Your task to perform on an android device: Open Google Maps Image 0: 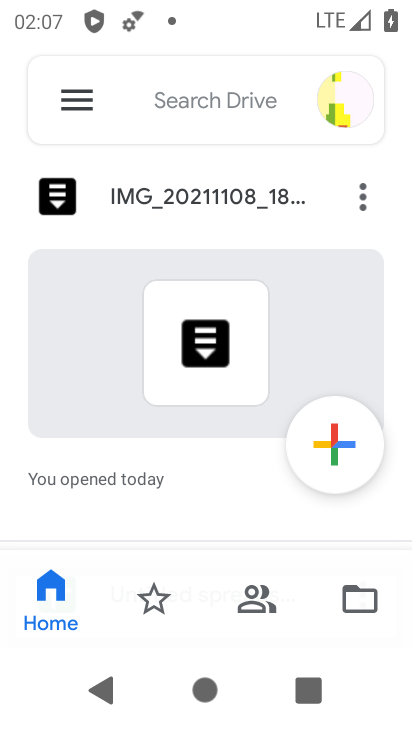
Step 0: press home button
Your task to perform on an android device: Open Google Maps Image 1: 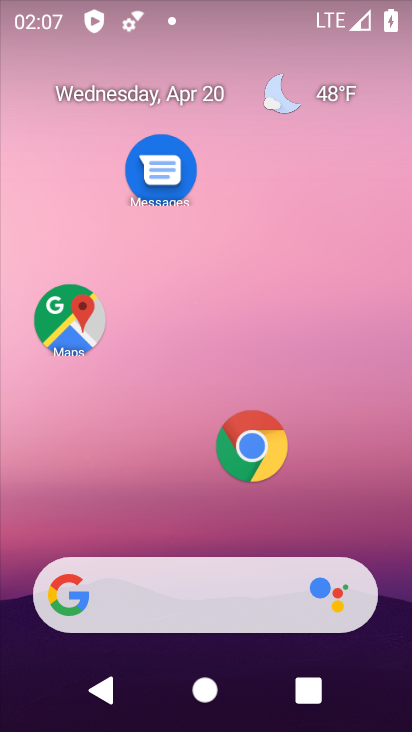
Step 1: click (75, 318)
Your task to perform on an android device: Open Google Maps Image 2: 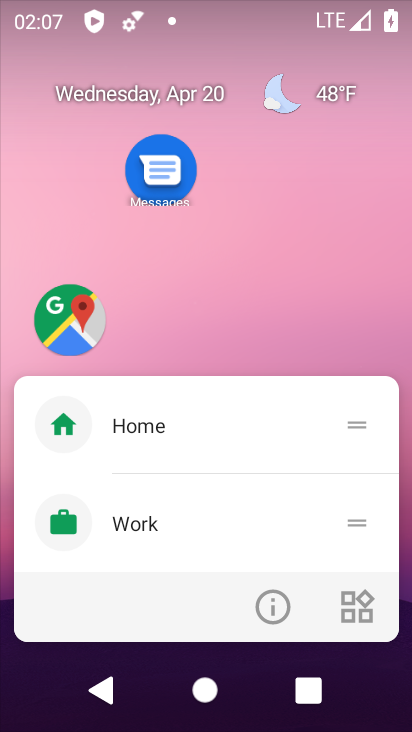
Step 2: click (167, 287)
Your task to perform on an android device: Open Google Maps Image 3: 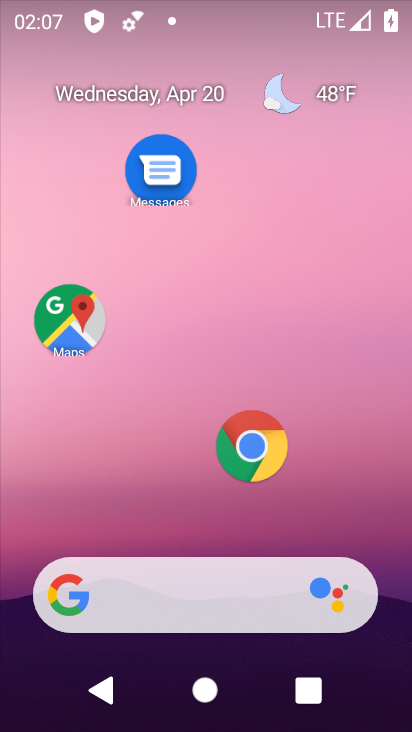
Step 3: click (70, 319)
Your task to perform on an android device: Open Google Maps Image 4: 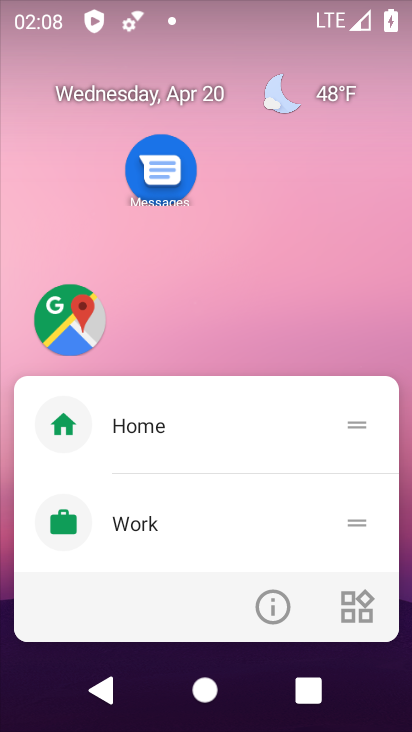
Step 4: click (65, 318)
Your task to perform on an android device: Open Google Maps Image 5: 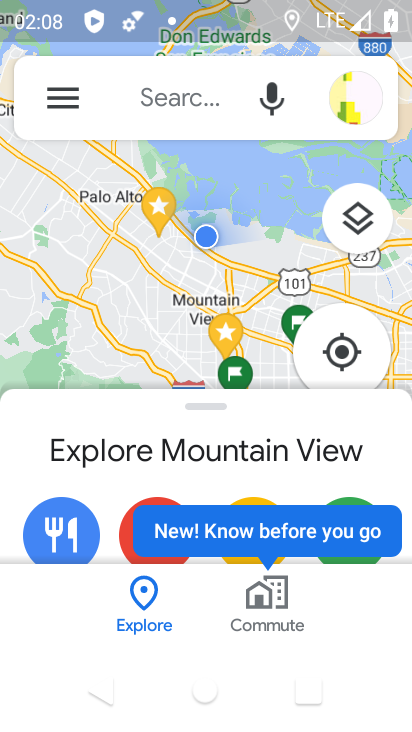
Step 5: task complete